Your task to perform on an android device: move a message to another label in the gmail app Image 0: 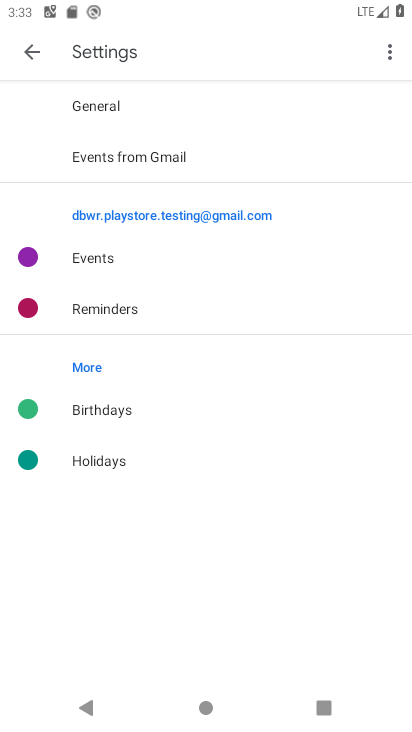
Step 0: press home button
Your task to perform on an android device: move a message to another label in the gmail app Image 1: 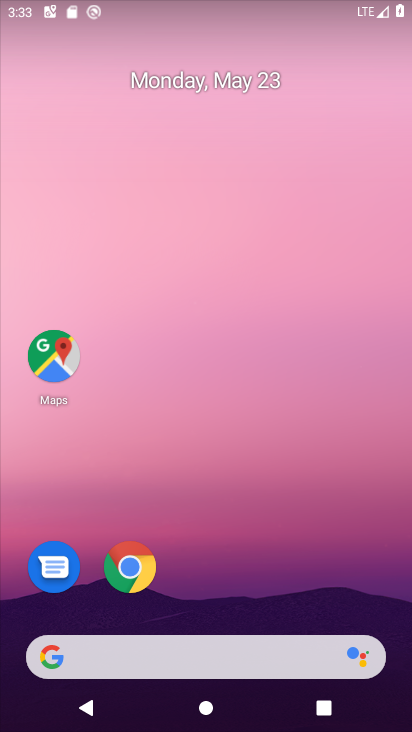
Step 1: drag from (36, 503) to (269, 120)
Your task to perform on an android device: move a message to another label in the gmail app Image 2: 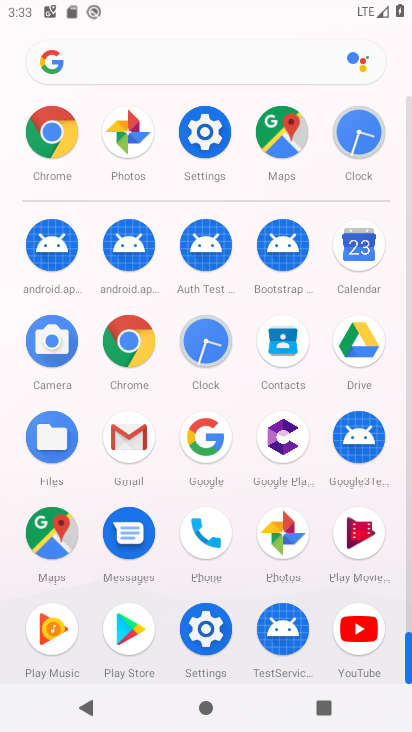
Step 2: click (130, 434)
Your task to perform on an android device: move a message to another label in the gmail app Image 3: 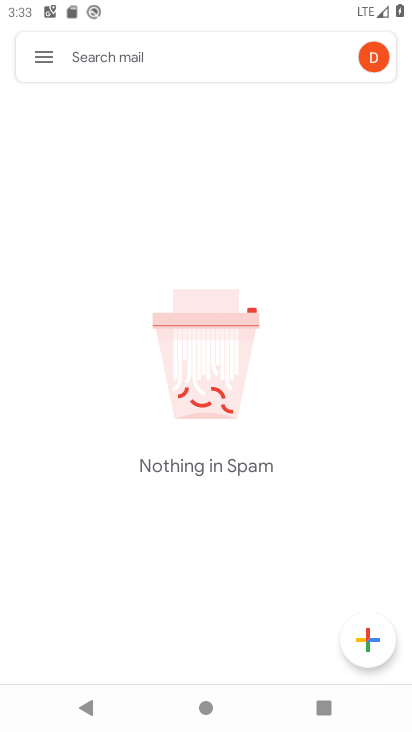
Step 3: click (53, 58)
Your task to perform on an android device: move a message to another label in the gmail app Image 4: 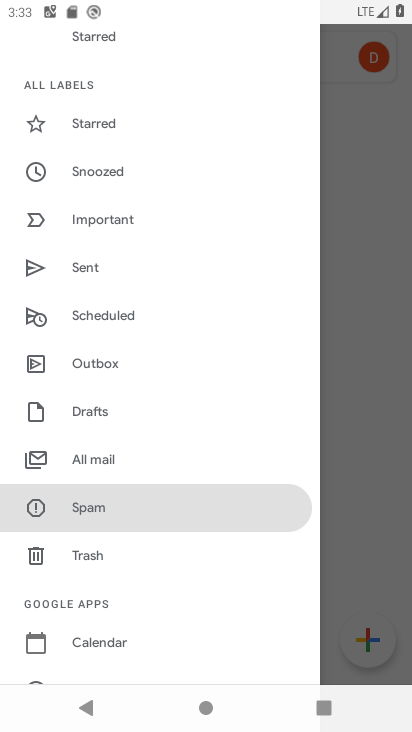
Step 4: drag from (132, 158) to (136, 610)
Your task to perform on an android device: move a message to another label in the gmail app Image 5: 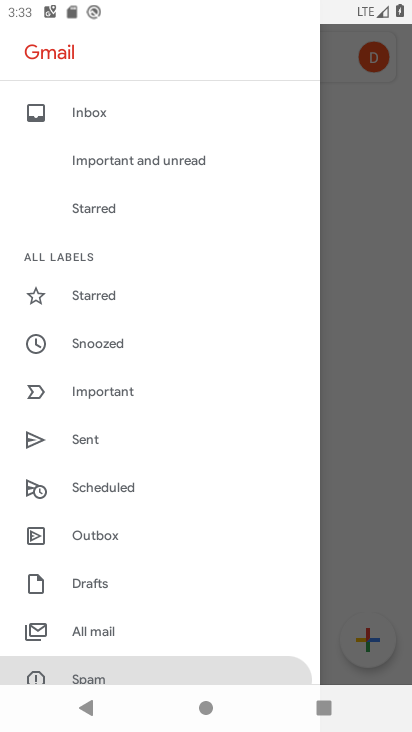
Step 5: click (143, 99)
Your task to perform on an android device: move a message to another label in the gmail app Image 6: 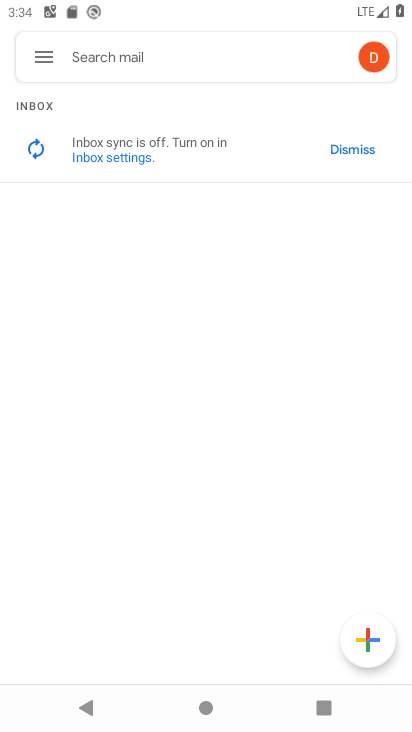
Step 6: task complete